Your task to perform on an android device: open app "Messages" Image 0: 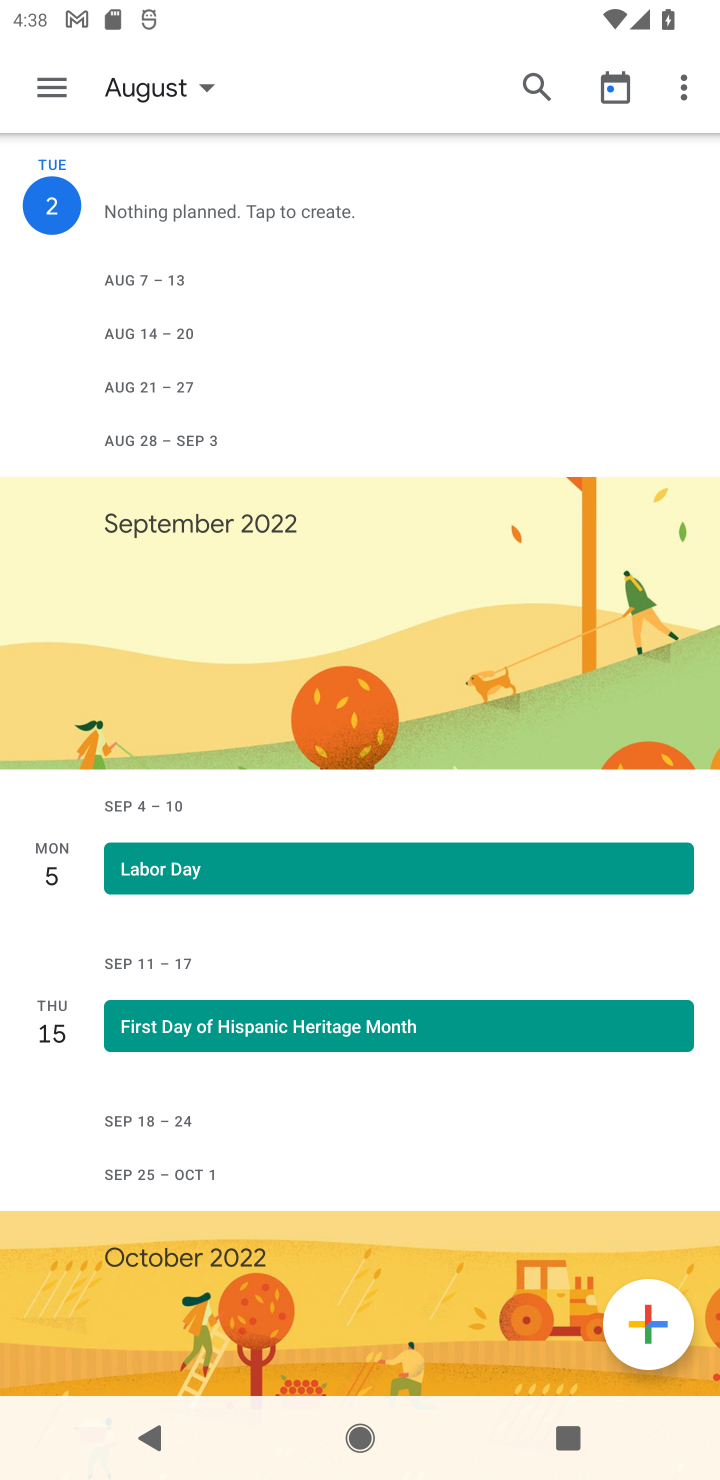
Step 0: press home button
Your task to perform on an android device: open app "Messages" Image 1: 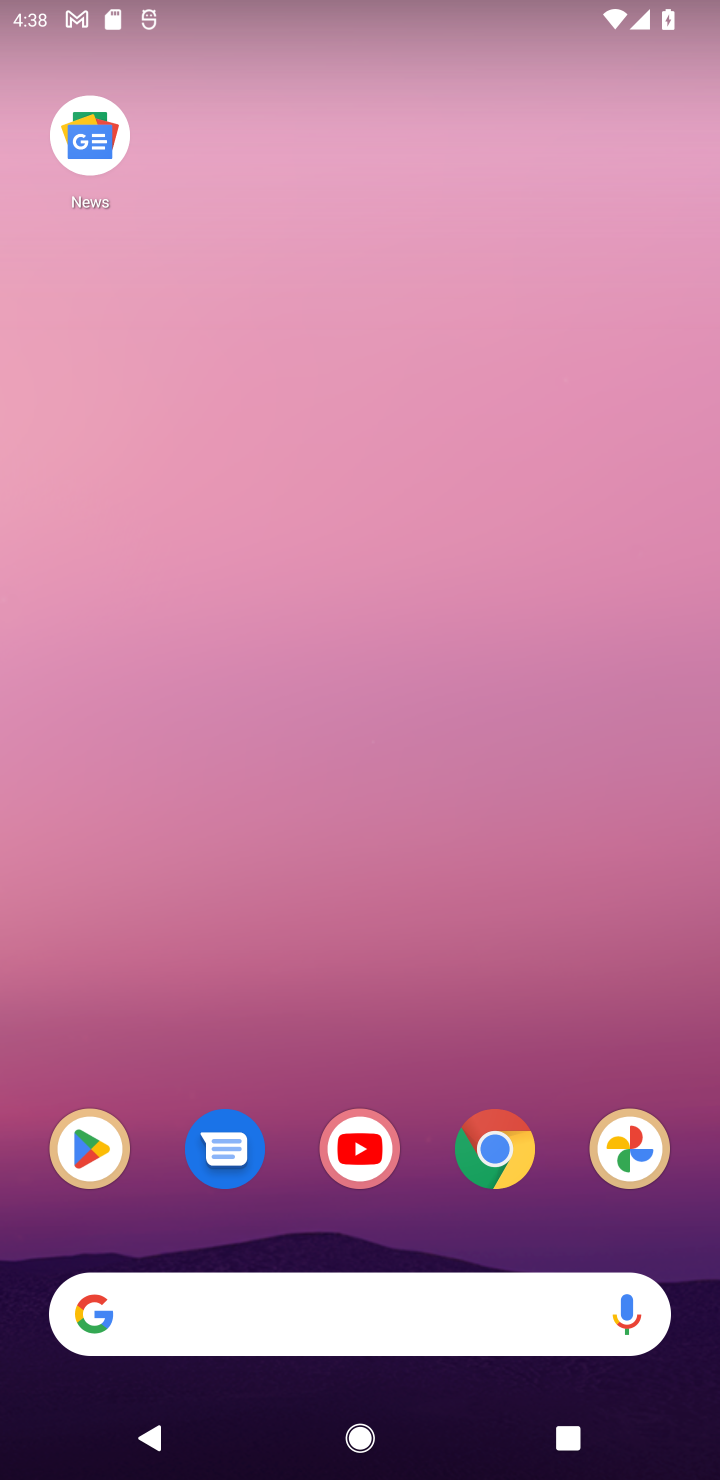
Step 1: click (73, 1166)
Your task to perform on an android device: open app "Messages" Image 2: 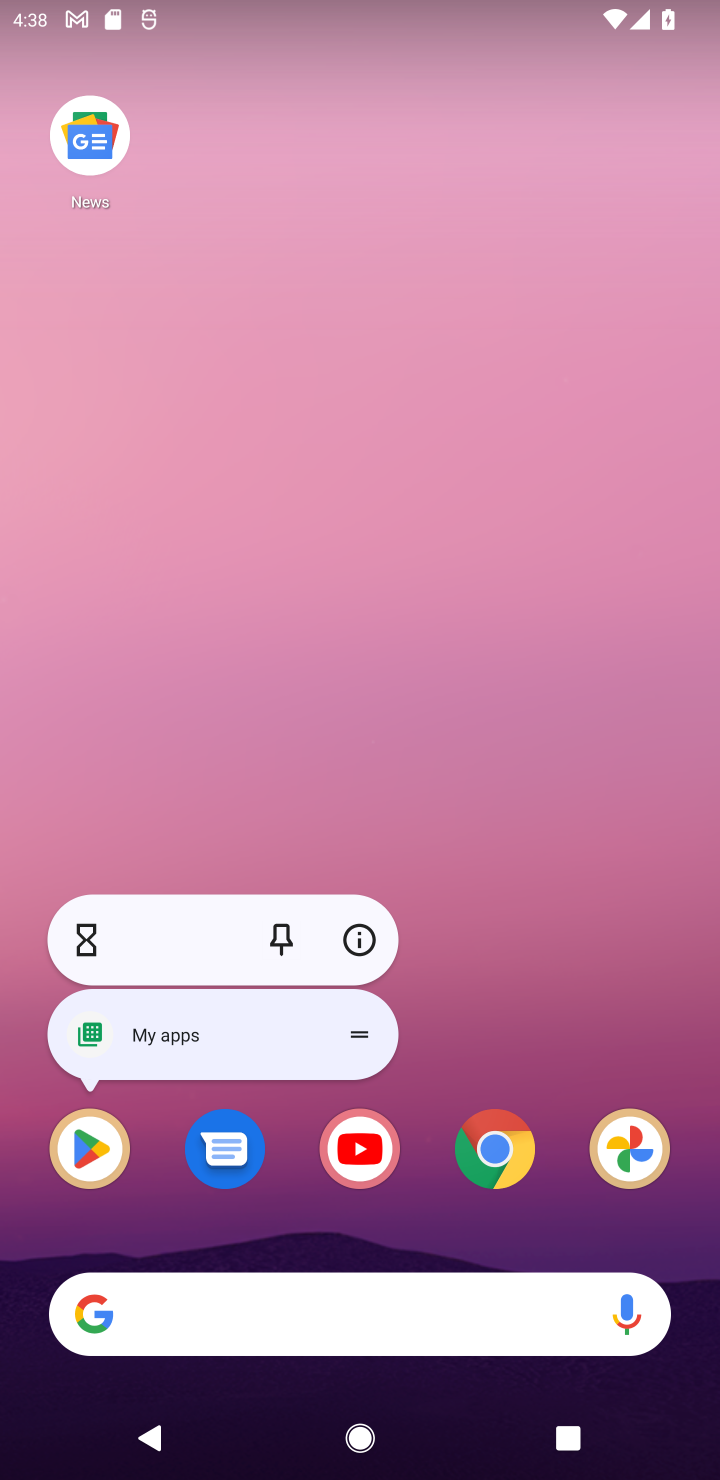
Step 2: click (75, 1138)
Your task to perform on an android device: open app "Messages" Image 3: 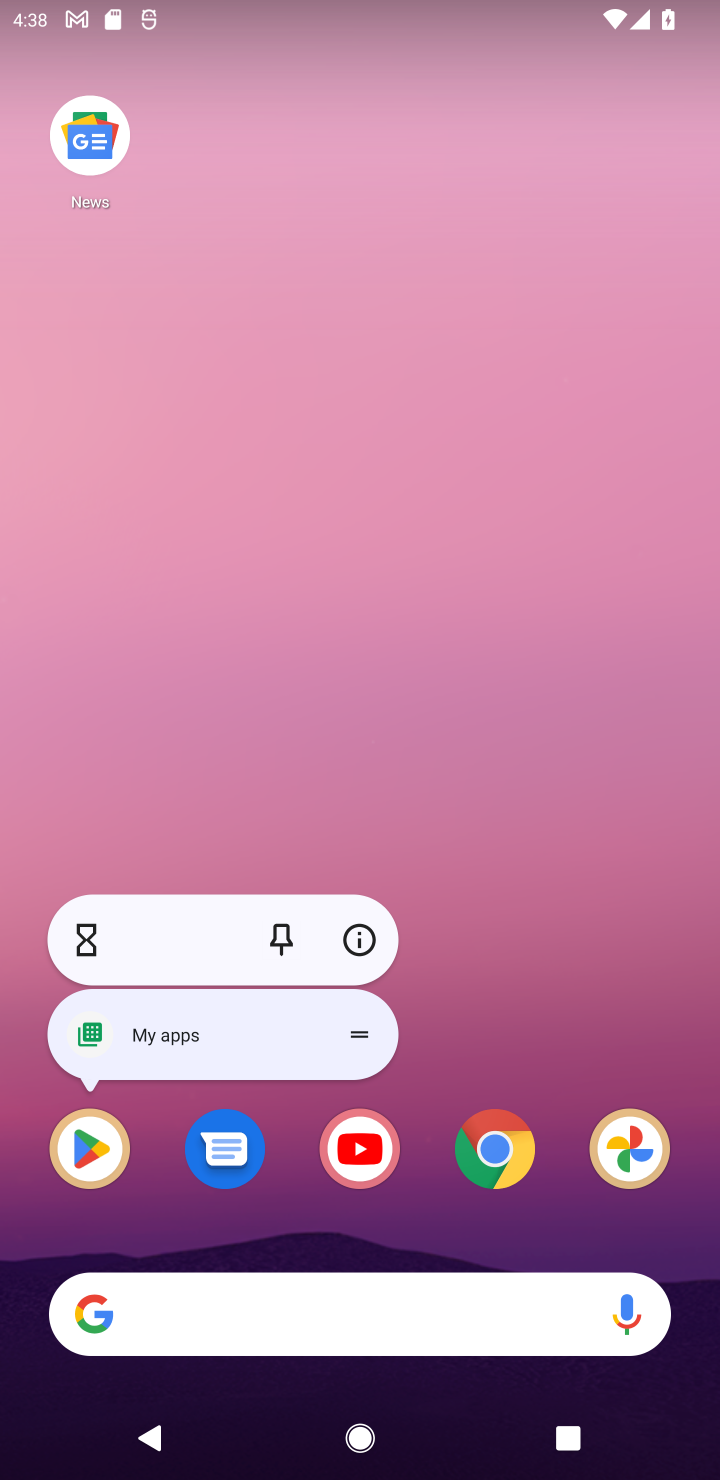
Step 3: click (75, 1160)
Your task to perform on an android device: open app "Messages" Image 4: 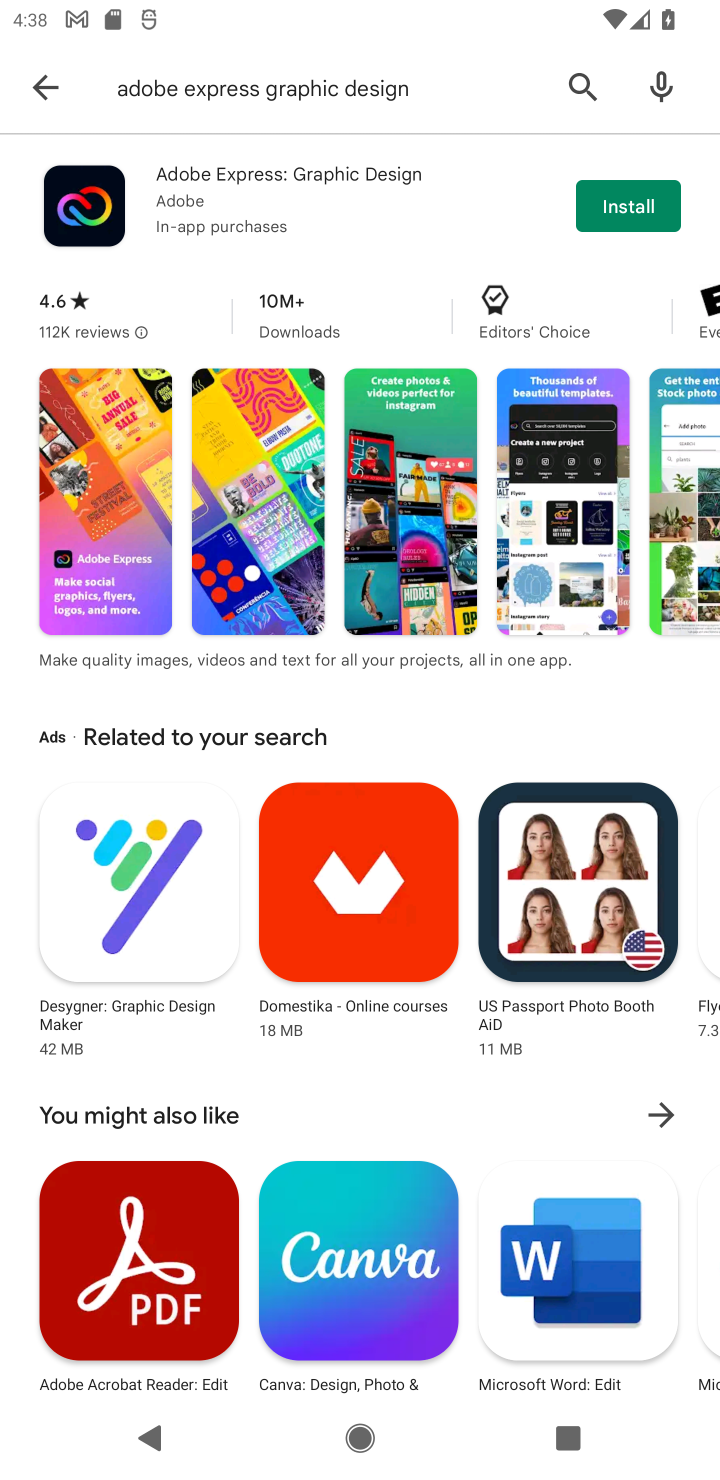
Step 4: click (61, 98)
Your task to perform on an android device: open app "Messages" Image 5: 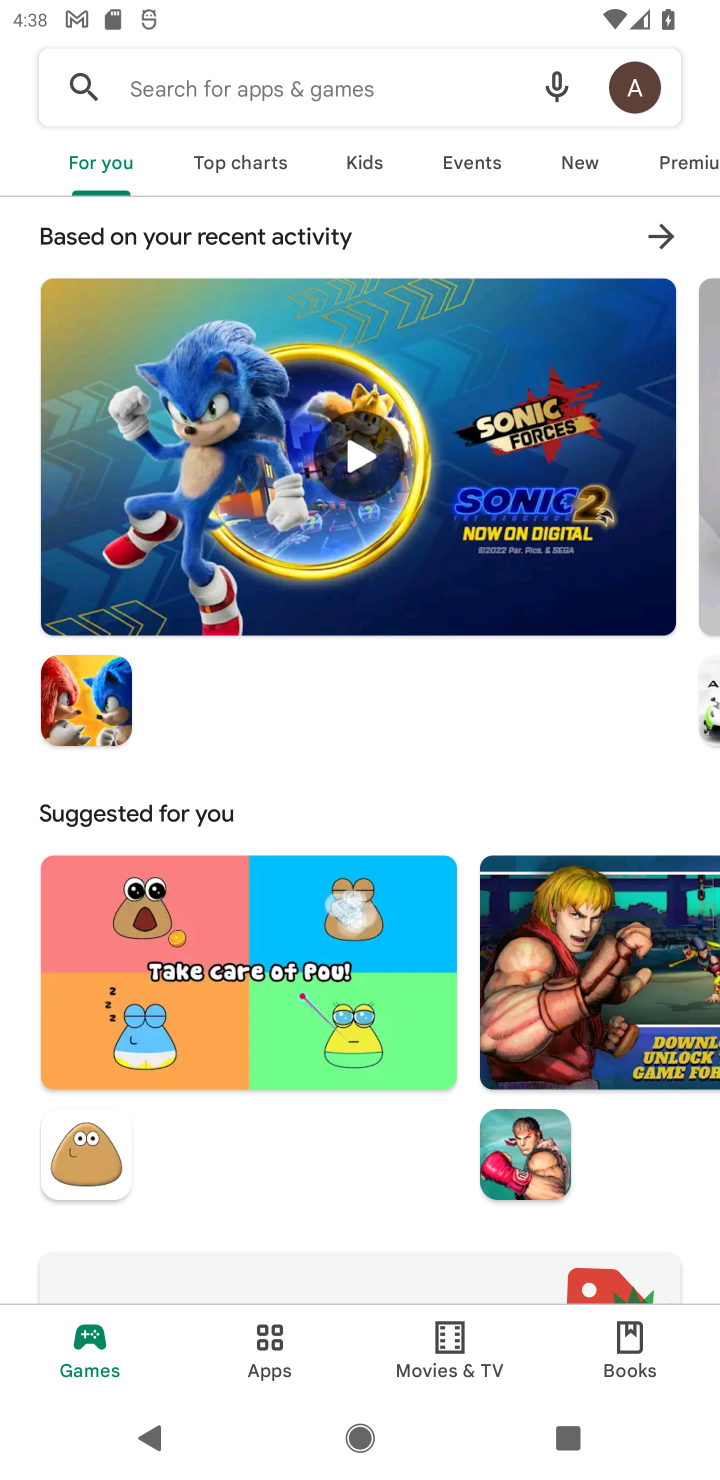
Step 5: click (164, 69)
Your task to perform on an android device: open app "Messages" Image 6: 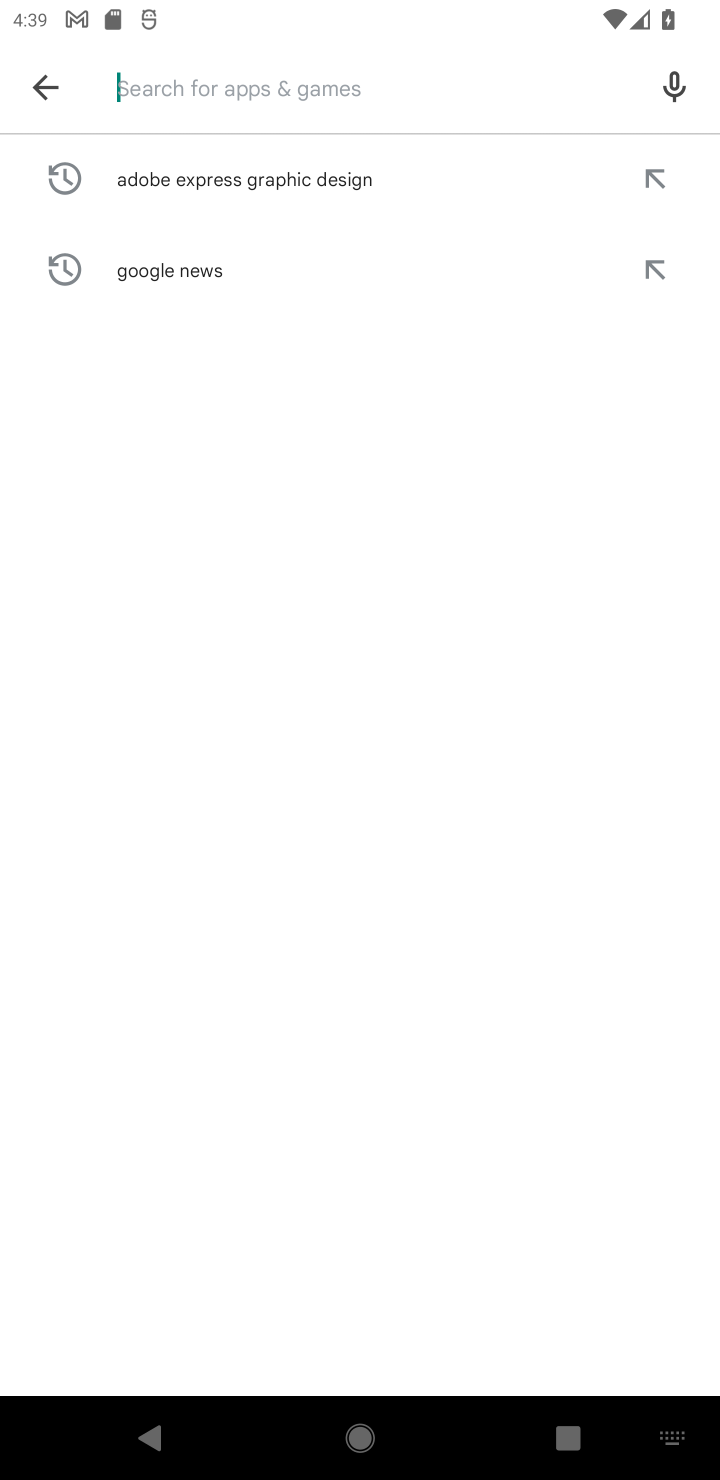
Step 6: type "Messages"
Your task to perform on an android device: open app "Messages" Image 7: 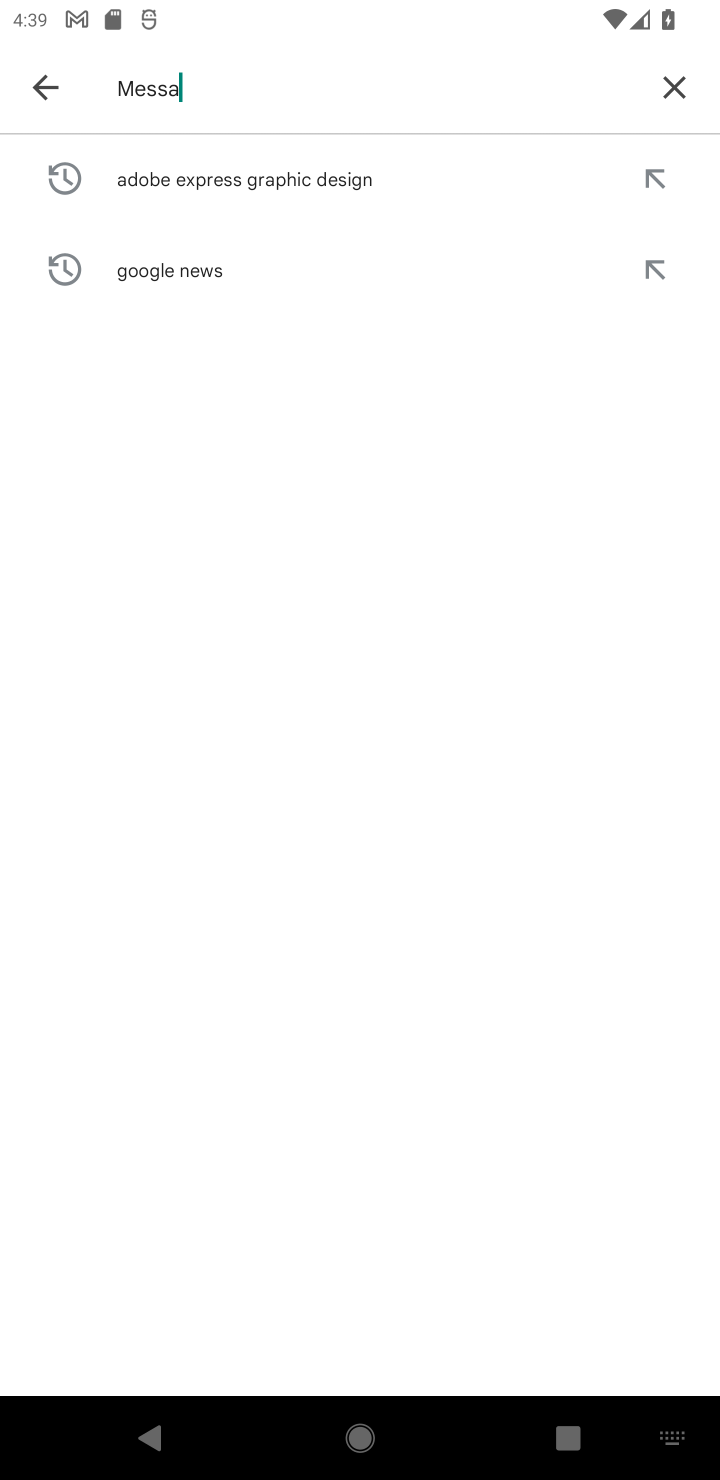
Step 7: type ""
Your task to perform on an android device: open app "Messages" Image 8: 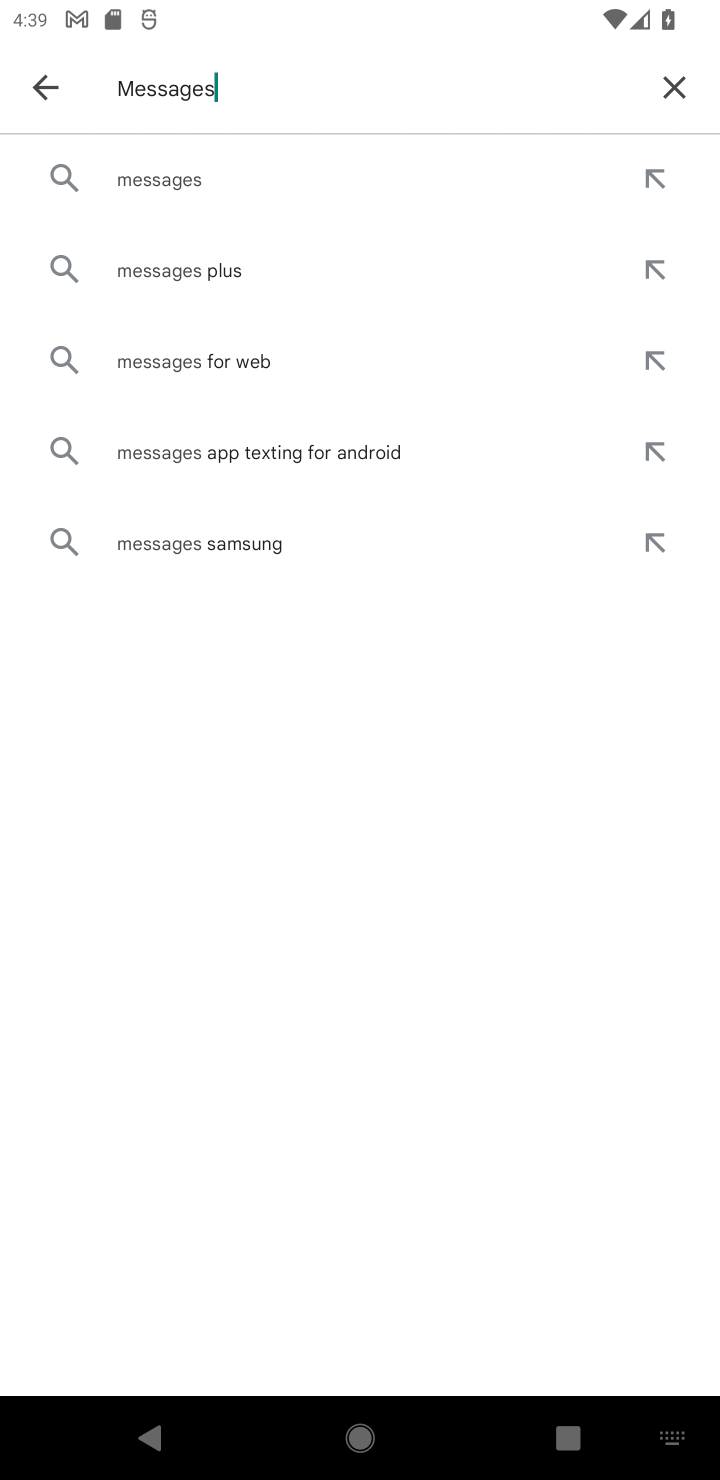
Step 8: click (160, 195)
Your task to perform on an android device: open app "Messages" Image 9: 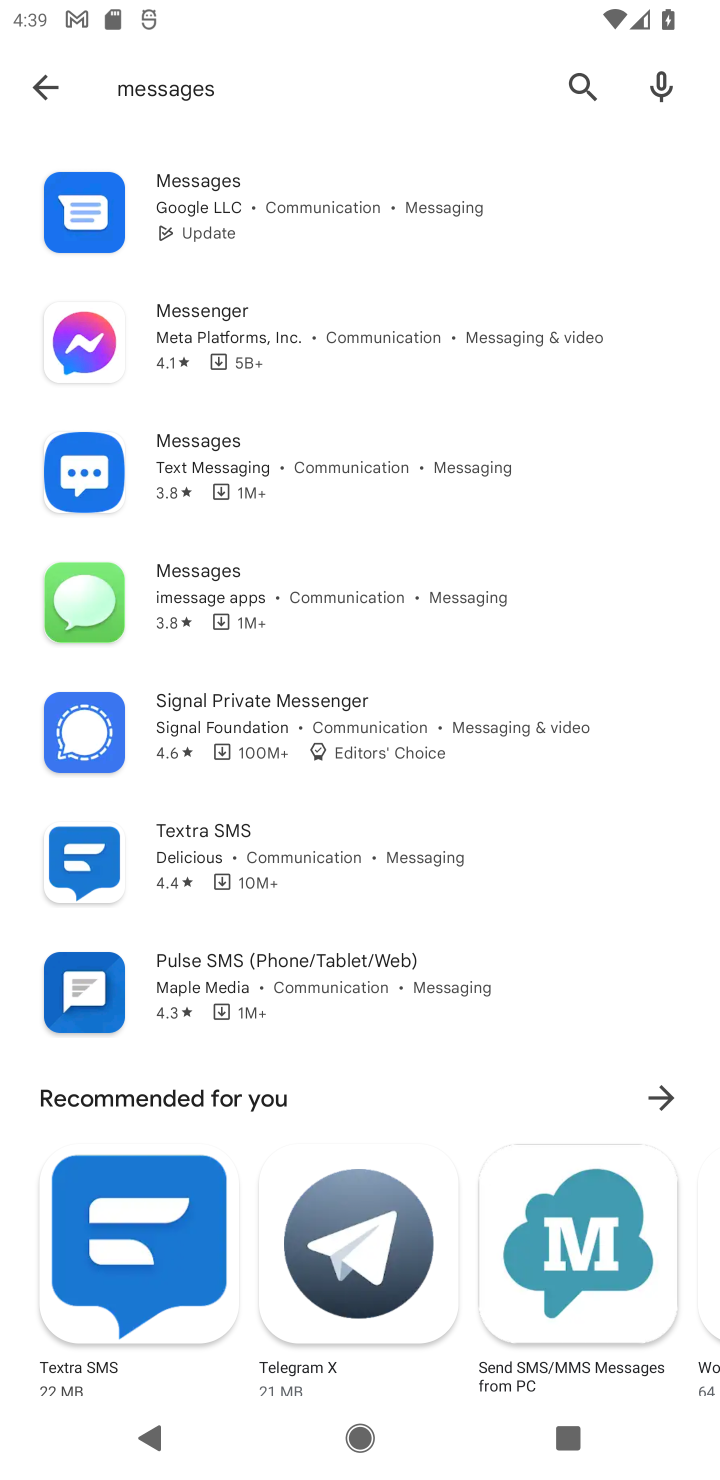
Step 9: task complete